Your task to perform on an android device: Go to Yahoo.com Image 0: 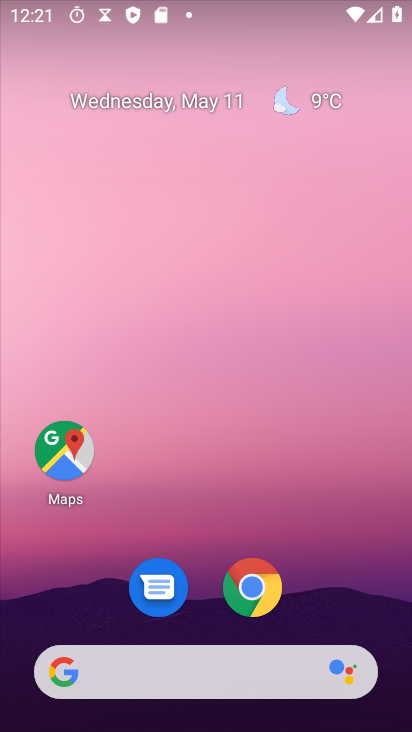
Step 0: drag from (357, 687) to (79, 186)
Your task to perform on an android device: Go to Yahoo.com Image 1: 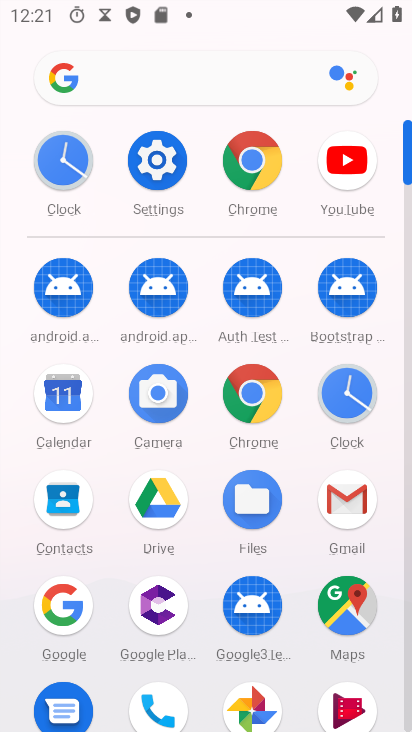
Step 1: click (259, 162)
Your task to perform on an android device: Go to Yahoo.com Image 2: 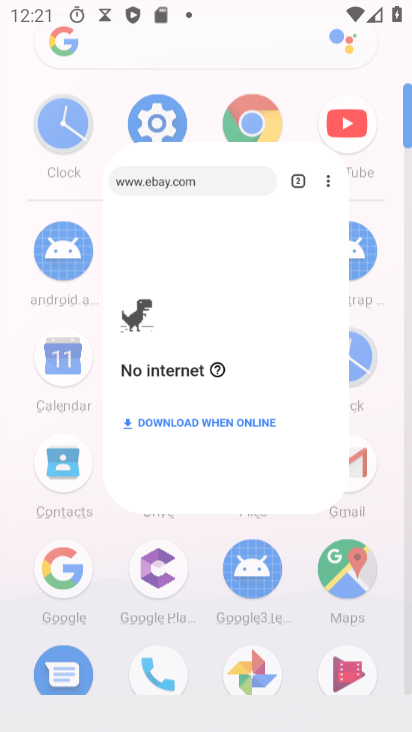
Step 2: click (262, 161)
Your task to perform on an android device: Go to Yahoo.com Image 3: 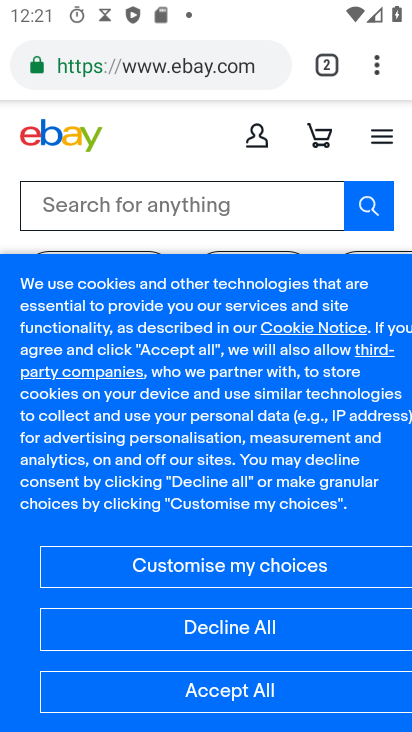
Step 3: press back button
Your task to perform on an android device: Go to Yahoo.com Image 4: 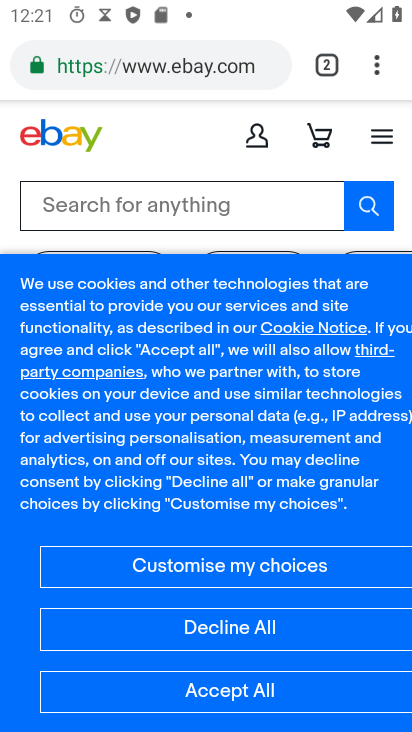
Step 4: press back button
Your task to perform on an android device: Go to Yahoo.com Image 5: 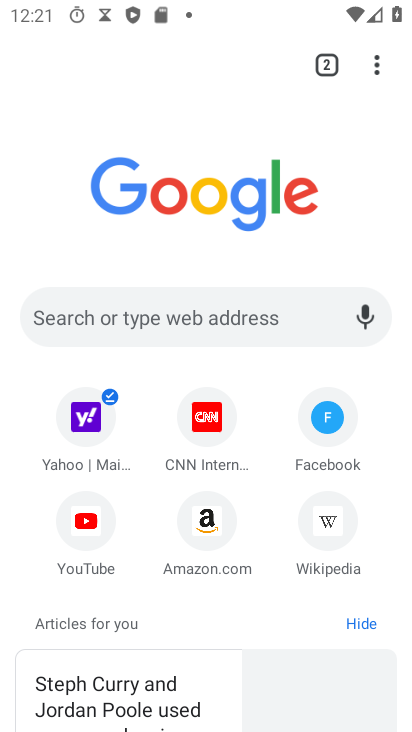
Step 5: press back button
Your task to perform on an android device: Go to Yahoo.com Image 6: 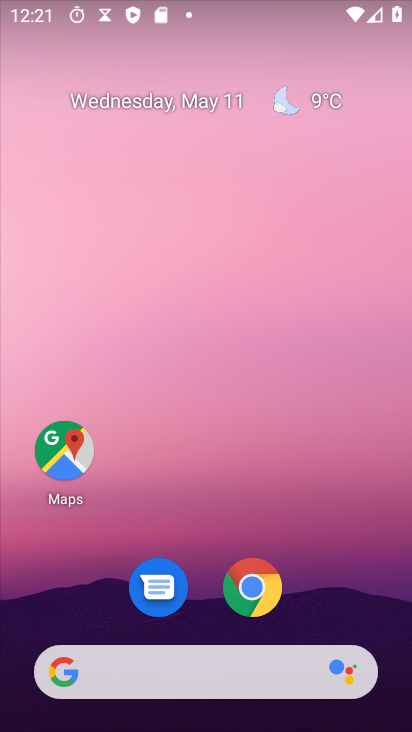
Step 6: drag from (132, 265) to (60, 113)
Your task to perform on an android device: Go to Yahoo.com Image 7: 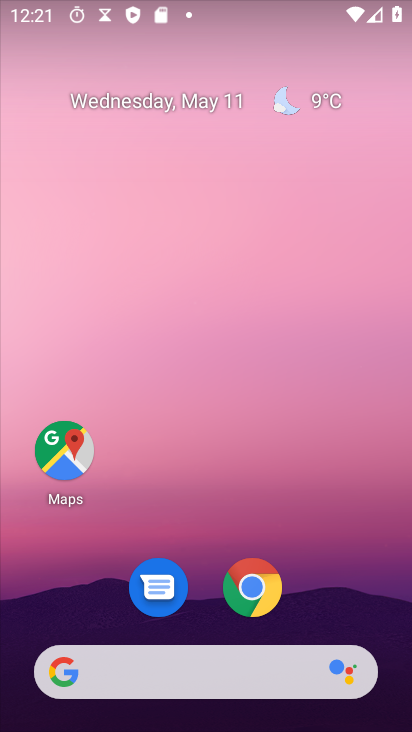
Step 7: drag from (315, 564) to (75, 140)
Your task to perform on an android device: Go to Yahoo.com Image 8: 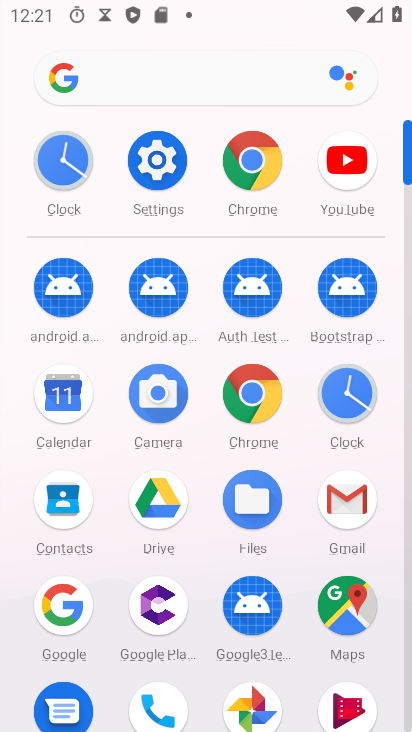
Step 8: click (253, 179)
Your task to perform on an android device: Go to Yahoo.com Image 9: 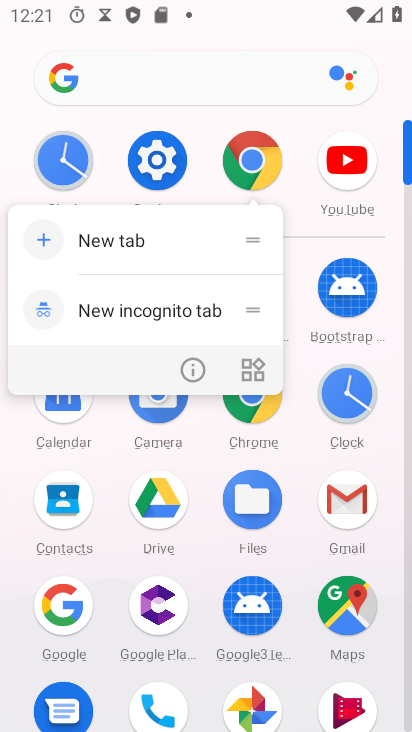
Step 9: click (256, 171)
Your task to perform on an android device: Go to Yahoo.com Image 10: 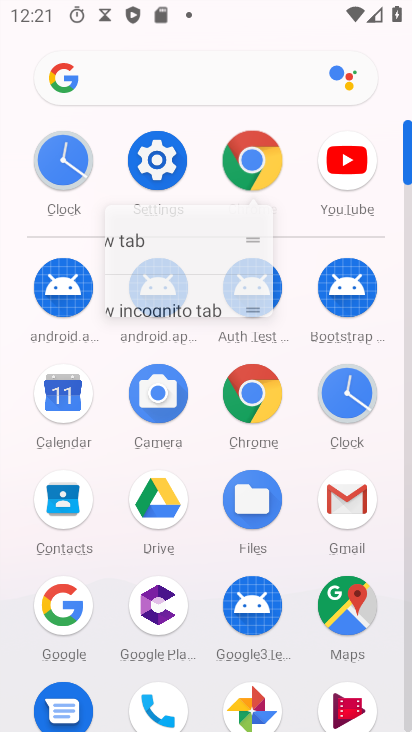
Step 10: click (256, 171)
Your task to perform on an android device: Go to Yahoo.com Image 11: 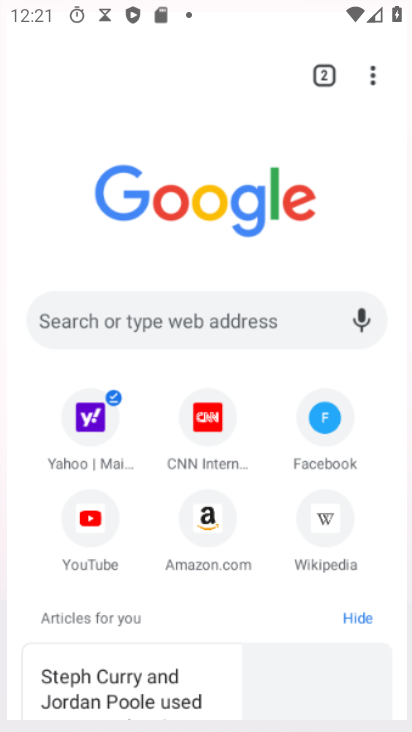
Step 11: click (261, 147)
Your task to perform on an android device: Go to Yahoo.com Image 12: 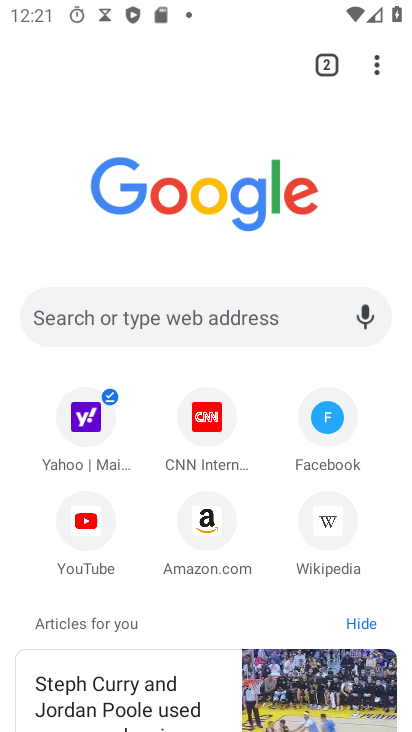
Step 12: click (84, 414)
Your task to perform on an android device: Go to Yahoo.com Image 13: 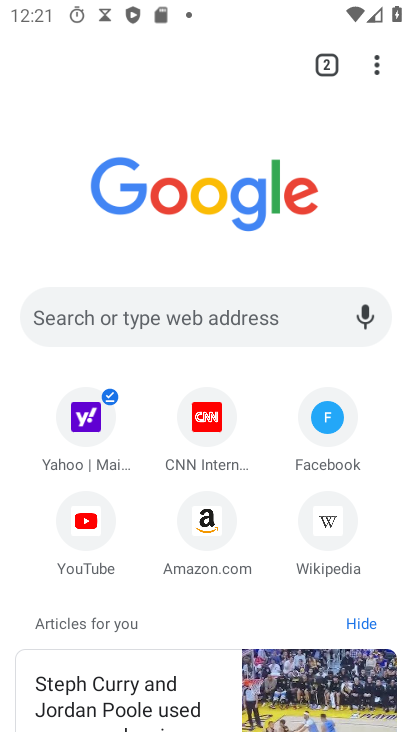
Step 13: click (83, 411)
Your task to perform on an android device: Go to Yahoo.com Image 14: 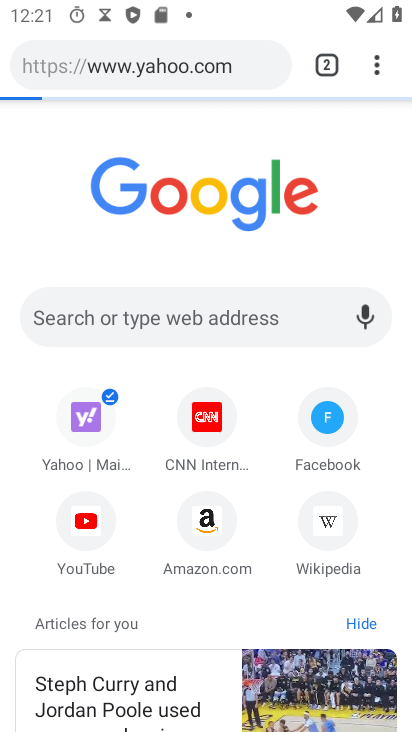
Step 14: click (76, 402)
Your task to perform on an android device: Go to Yahoo.com Image 15: 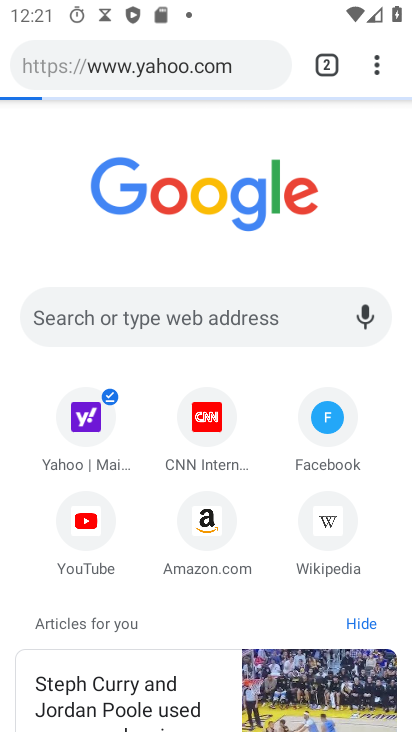
Step 15: click (81, 416)
Your task to perform on an android device: Go to Yahoo.com Image 16: 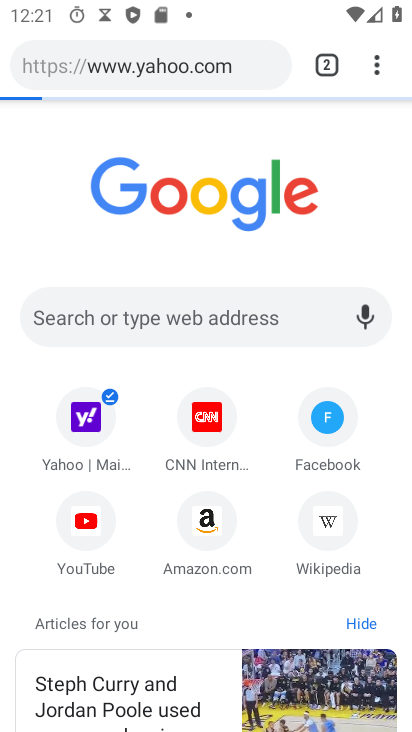
Step 16: click (78, 411)
Your task to perform on an android device: Go to Yahoo.com Image 17: 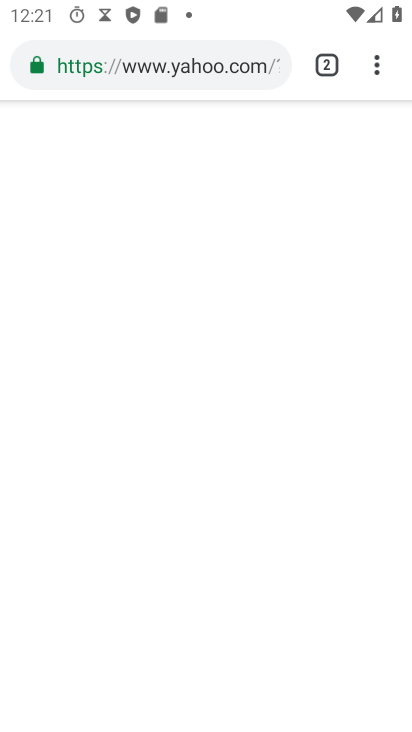
Step 17: click (78, 403)
Your task to perform on an android device: Go to Yahoo.com Image 18: 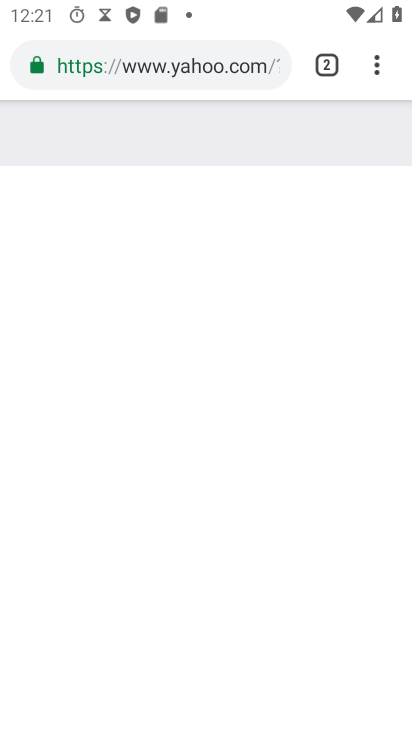
Step 18: click (75, 397)
Your task to perform on an android device: Go to Yahoo.com Image 19: 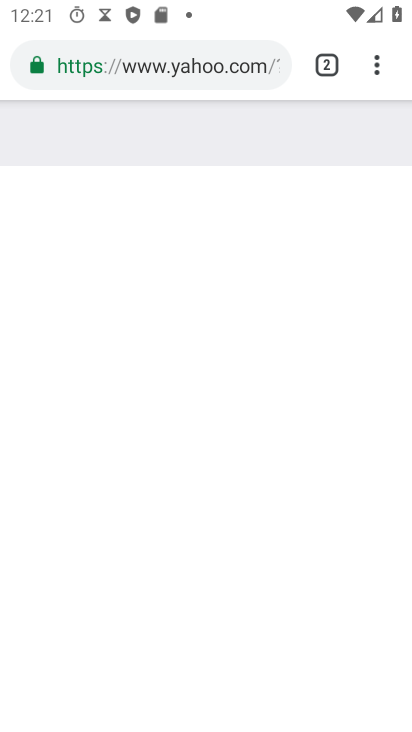
Step 19: click (73, 395)
Your task to perform on an android device: Go to Yahoo.com Image 20: 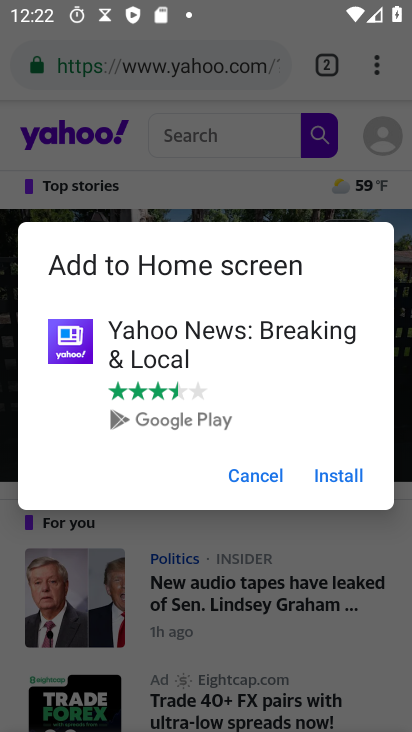
Step 20: click (268, 480)
Your task to perform on an android device: Go to Yahoo.com Image 21: 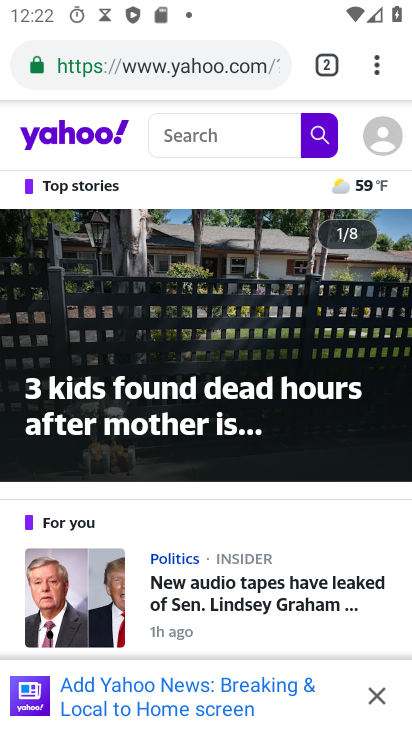
Step 21: task complete